Your task to perform on an android device: Go to wifi settings Image 0: 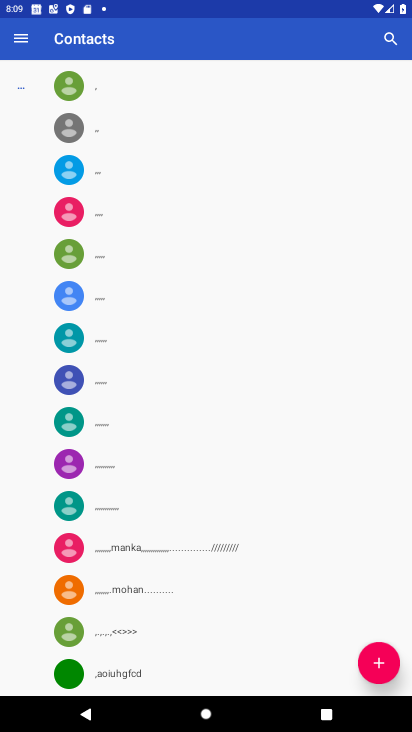
Step 0: press home button
Your task to perform on an android device: Go to wifi settings Image 1: 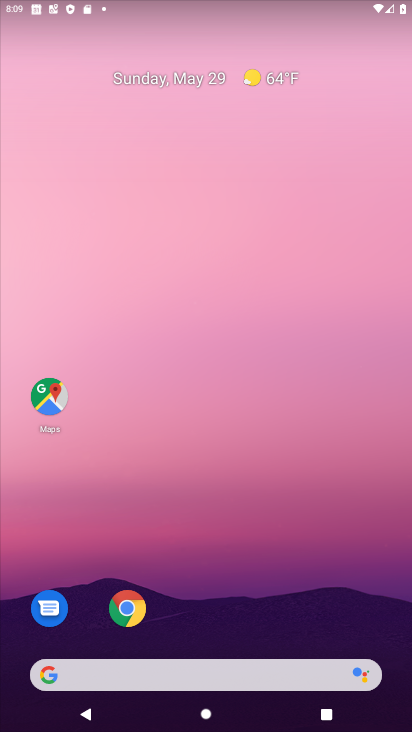
Step 1: drag from (222, 490) to (148, 133)
Your task to perform on an android device: Go to wifi settings Image 2: 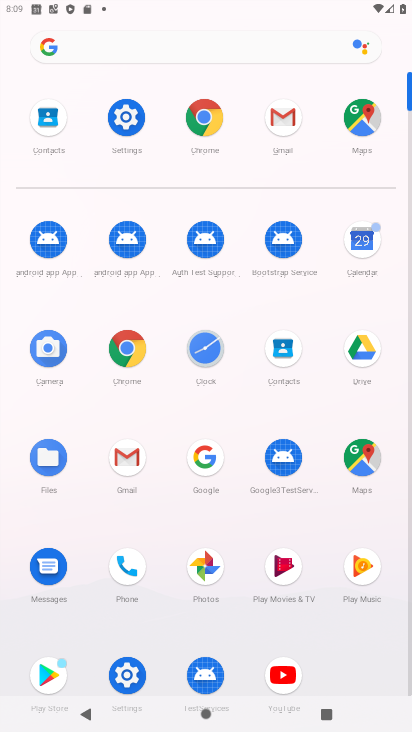
Step 2: click (124, 118)
Your task to perform on an android device: Go to wifi settings Image 3: 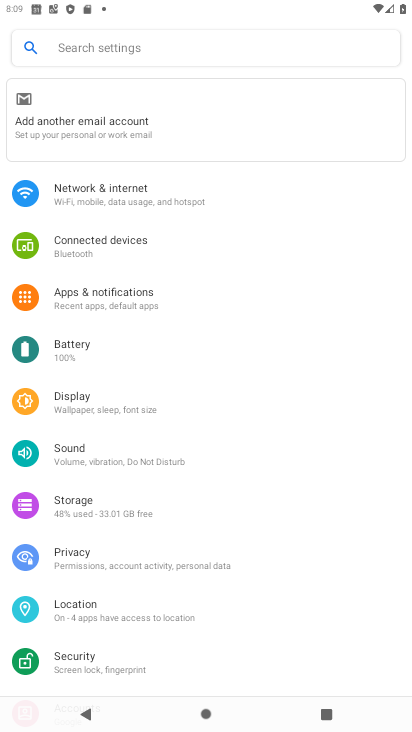
Step 3: click (87, 197)
Your task to perform on an android device: Go to wifi settings Image 4: 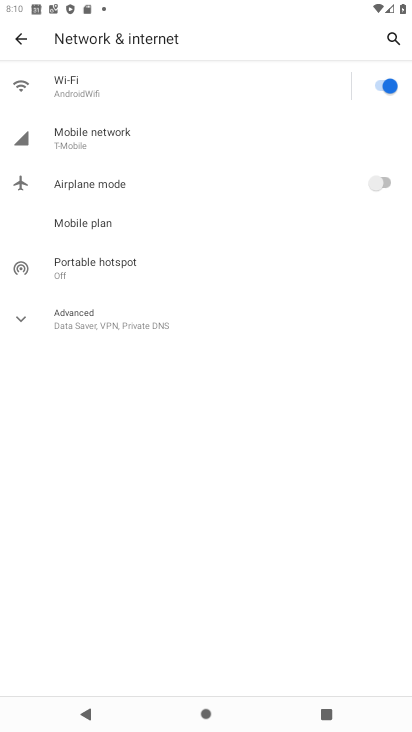
Step 4: click (100, 78)
Your task to perform on an android device: Go to wifi settings Image 5: 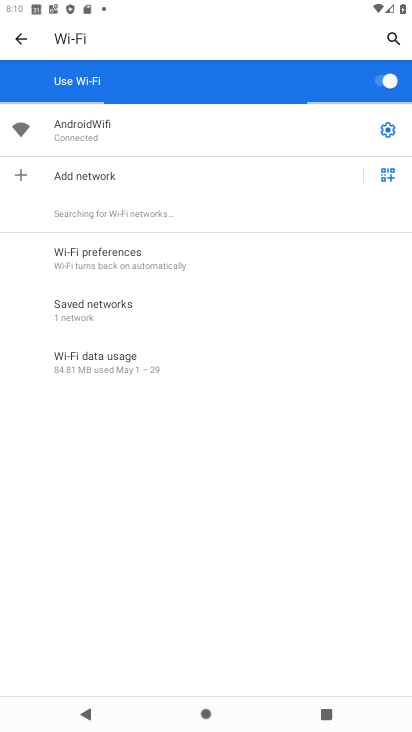
Step 5: task complete